Your task to perform on an android device: View the shopping cart on bestbuy. Search for asus rog on bestbuy, select the first entry, and add it to the cart. Image 0: 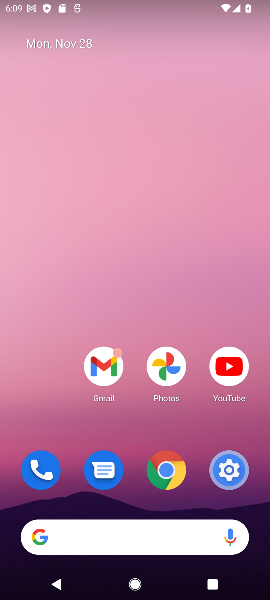
Step 0: click (79, 547)
Your task to perform on an android device: View the shopping cart on bestbuy. Search for asus rog on bestbuy, select the first entry, and add it to the cart. Image 1: 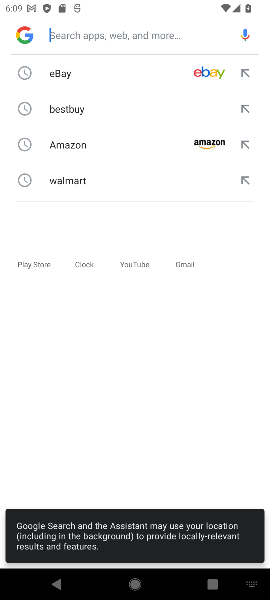
Step 1: click (63, 114)
Your task to perform on an android device: View the shopping cart on bestbuy. Search for asus rog on bestbuy, select the first entry, and add it to the cart. Image 2: 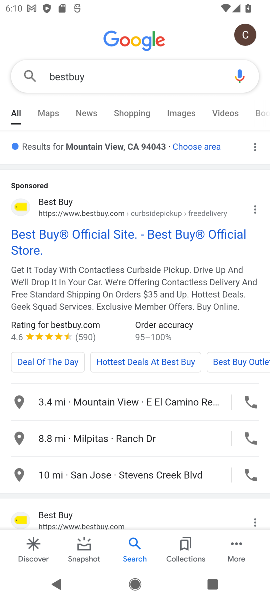
Step 2: click (37, 240)
Your task to perform on an android device: View the shopping cart on bestbuy. Search for asus rog on bestbuy, select the first entry, and add it to the cart. Image 3: 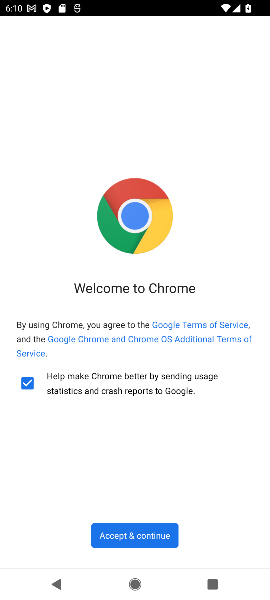
Step 3: click (130, 537)
Your task to perform on an android device: View the shopping cart on bestbuy. Search for asus rog on bestbuy, select the first entry, and add it to the cart. Image 4: 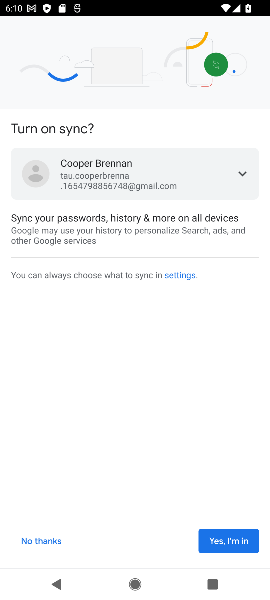
Step 4: click (226, 543)
Your task to perform on an android device: View the shopping cart on bestbuy. Search for asus rog on bestbuy, select the first entry, and add it to the cart. Image 5: 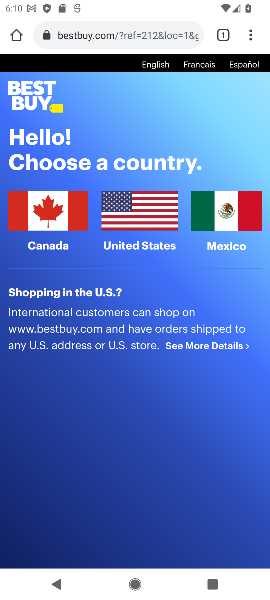
Step 5: click (148, 230)
Your task to perform on an android device: View the shopping cart on bestbuy. Search for asus rog on bestbuy, select the first entry, and add it to the cart. Image 6: 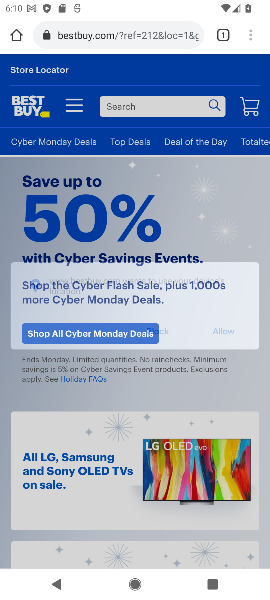
Step 6: click (256, 113)
Your task to perform on an android device: View the shopping cart on bestbuy. Search for asus rog on bestbuy, select the first entry, and add it to the cart. Image 7: 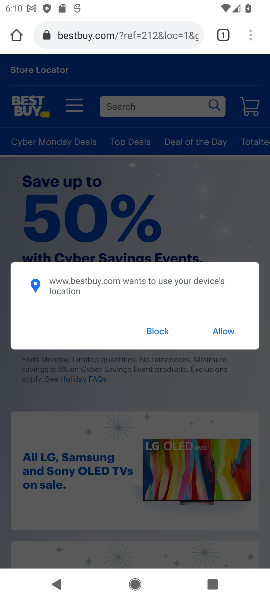
Step 7: click (152, 330)
Your task to perform on an android device: View the shopping cart on bestbuy. Search for asus rog on bestbuy, select the first entry, and add it to the cart. Image 8: 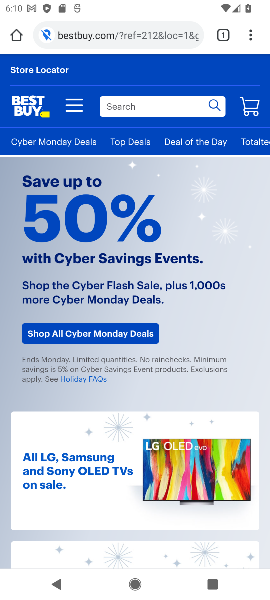
Step 8: click (152, 102)
Your task to perform on an android device: View the shopping cart on bestbuy. Search for asus rog on bestbuy, select the first entry, and add it to the cart. Image 9: 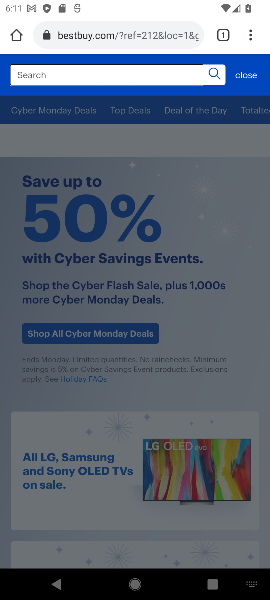
Step 9: type "asus rog"
Your task to perform on an android device: View the shopping cart on bestbuy. Search for asus rog on bestbuy, select the first entry, and add it to the cart. Image 10: 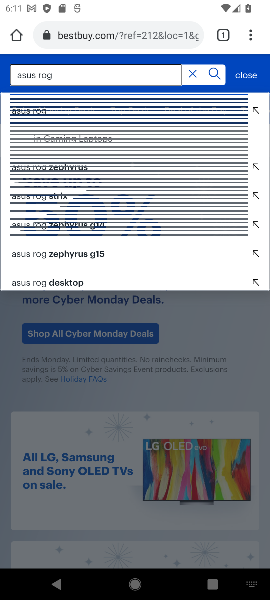
Step 10: click (38, 108)
Your task to perform on an android device: View the shopping cart on bestbuy. Search for asus rog on bestbuy, select the first entry, and add it to the cart. Image 11: 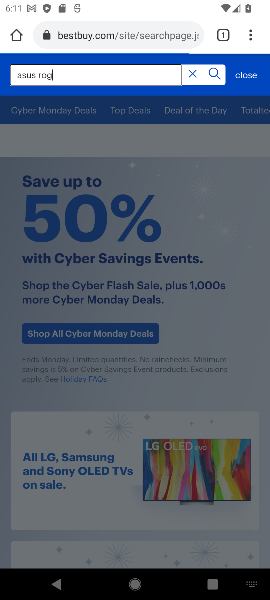
Step 11: click (215, 71)
Your task to perform on an android device: View the shopping cart on bestbuy. Search for asus rog on bestbuy, select the first entry, and add it to the cart. Image 12: 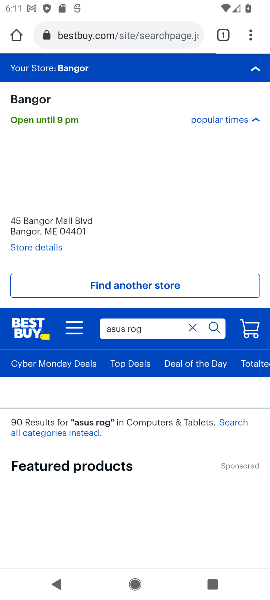
Step 12: drag from (140, 453) to (138, 206)
Your task to perform on an android device: View the shopping cart on bestbuy. Search for asus rog on bestbuy, select the first entry, and add it to the cart. Image 13: 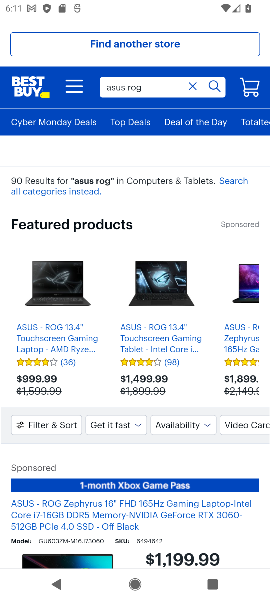
Step 13: drag from (114, 289) to (98, 366)
Your task to perform on an android device: View the shopping cart on bestbuy. Search for asus rog on bestbuy, select the first entry, and add it to the cart. Image 14: 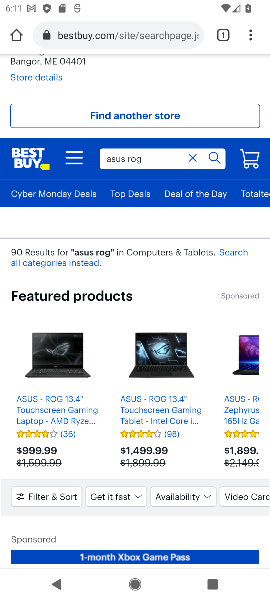
Step 14: drag from (98, 366) to (110, 221)
Your task to perform on an android device: View the shopping cart on bestbuy. Search for asus rog on bestbuy, select the first entry, and add it to the cart. Image 15: 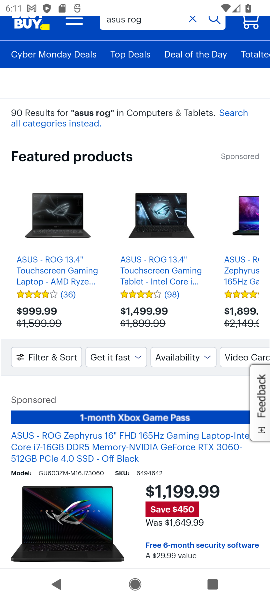
Step 15: drag from (135, 508) to (130, 411)
Your task to perform on an android device: View the shopping cart on bestbuy. Search for asus rog on bestbuy, select the first entry, and add it to the cart. Image 16: 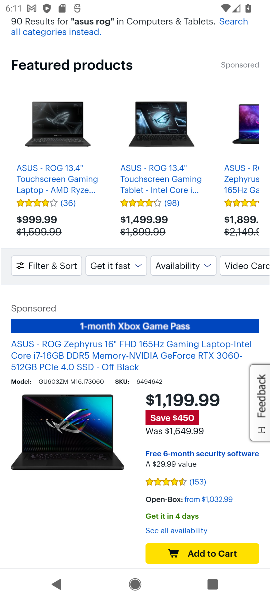
Step 16: click (108, 396)
Your task to perform on an android device: View the shopping cart on bestbuy. Search for asus rog on bestbuy, select the first entry, and add it to the cart. Image 17: 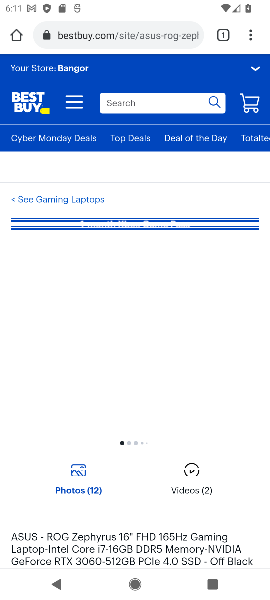
Step 17: drag from (115, 514) to (149, 313)
Your task to perform on an android device: View the shopping cart on bestbuy. Search for asus rog on bestbuy, select the first entry, and add it to the cart. Image 18: 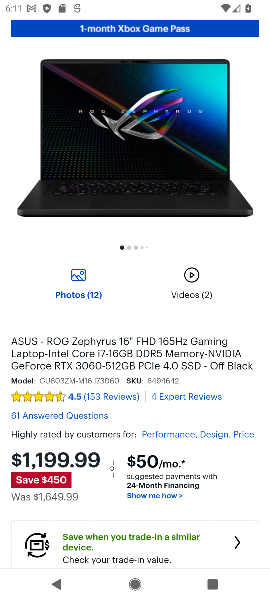
Step 18: drag from (159, 502) to (159, 285)
Your task to perform on an android device: View the shopping cart on bestbuy. Search for asus rog on bestbuy, select the first entry, and add it to the cart. Image 19: 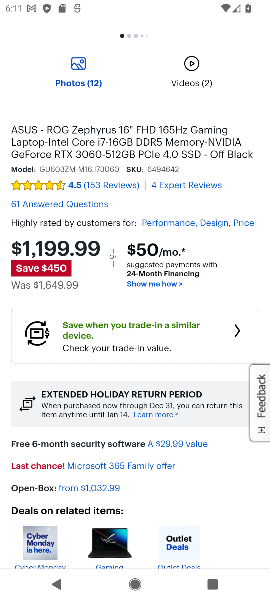
Step 19: drag from (175, 459) to (189, 212)
Your task to perform on an android device: View the shopping cart on bestbuy. Search for asus rog on bestbuy, select the first entry, and add it to the cart. Image 20: 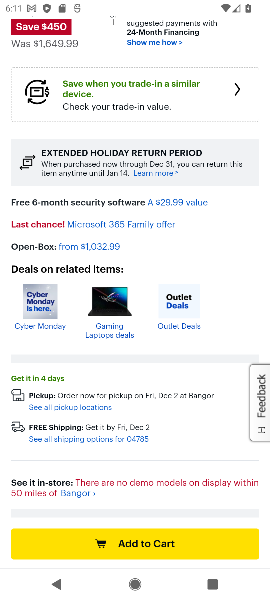
Step 20: click (136, 540)
Your task to perform on an android device: View the shopping cart on bestbuy. Search for asus rog on bestbuy, select the first entry, and add it to the cart. Image 21: 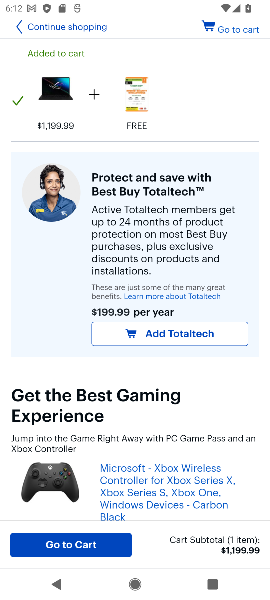
Step 21: task complete